Your task to perform on an android device: Go to Android settings Image 0: 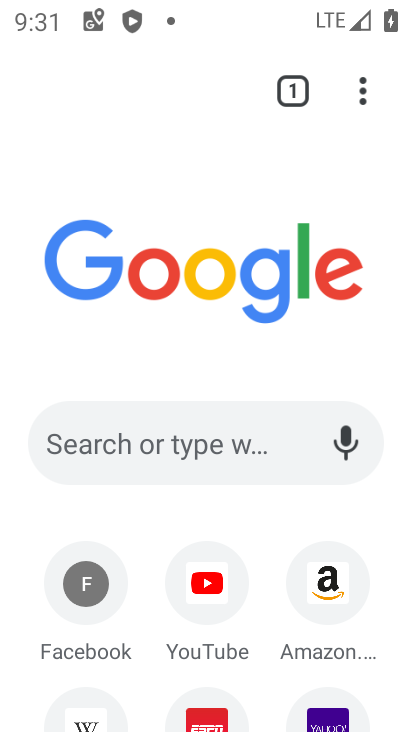
Step 0: press home button
Your task to perform on an android device: Go to Android settings Image 1: 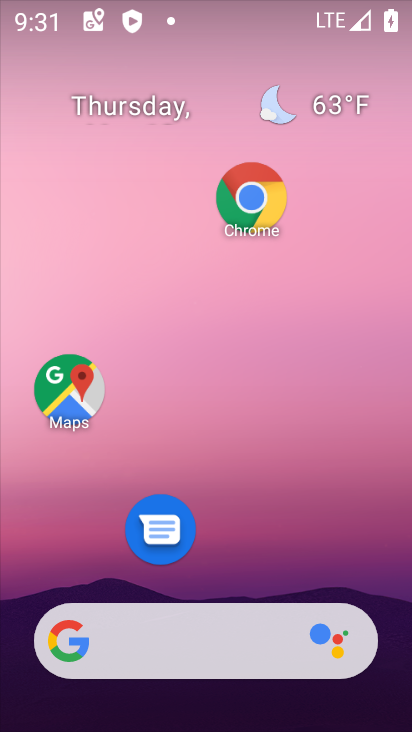
Step 1: drag from (389, 589) to (389, 548)
Your task to perform on an android device: Go to Android settings Image 2: 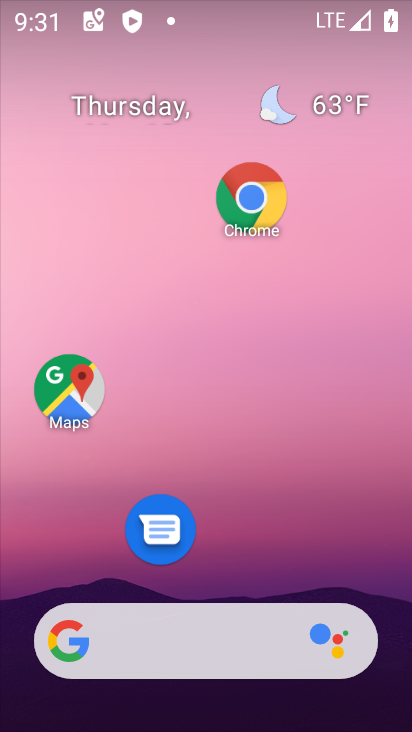
Step 2: drag from (295, 550) to (374, 196)
Your task to perform on an android device: Go to Android settings Image 3: 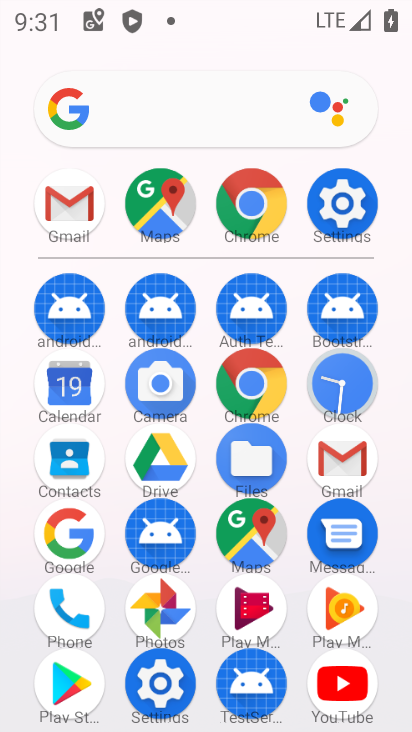
Step 3: click (330, 237)
Your task to perform on an android device: Go to Android settings Image 4: 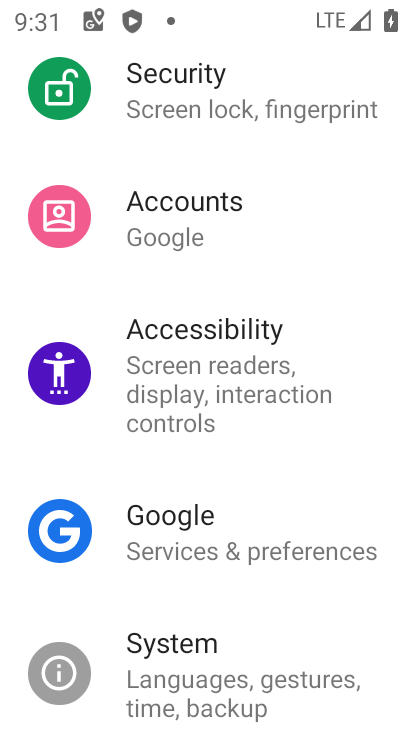
Step 4: drag from (273, 607) to (331, 246)
Your task to perform on an android device: Go to Android settings Image 5: 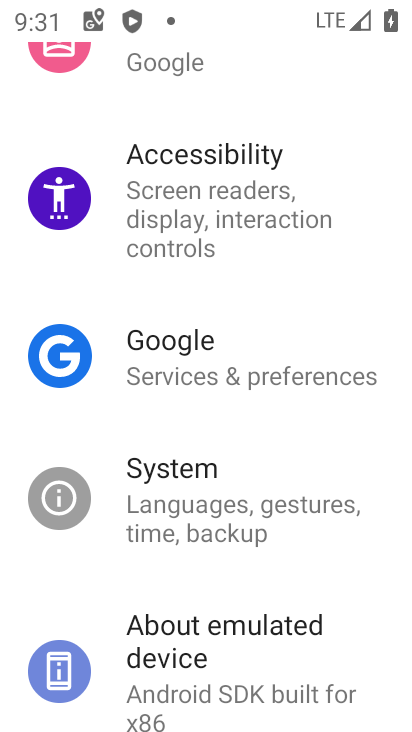
Step 5: drag from (243, 490) to (310, 243)
Your task to perform on an android device: Go to Android settings Image 6: 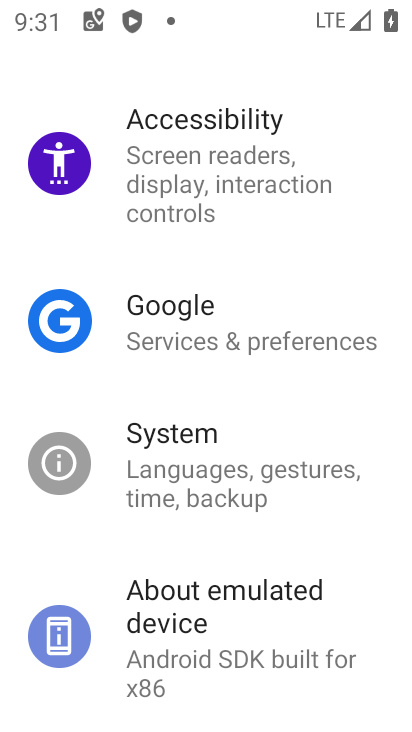
Step 6: click (192, 645)
Your task to perform on an android device: Go to Android settings Image 7: 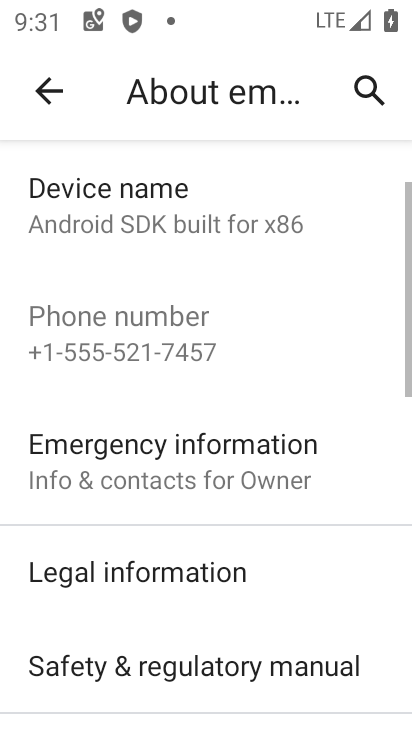
Step 7: drag from (192, 645) to (207, 548)
Your task to perform on an android device: Go to Android settings Image 8: 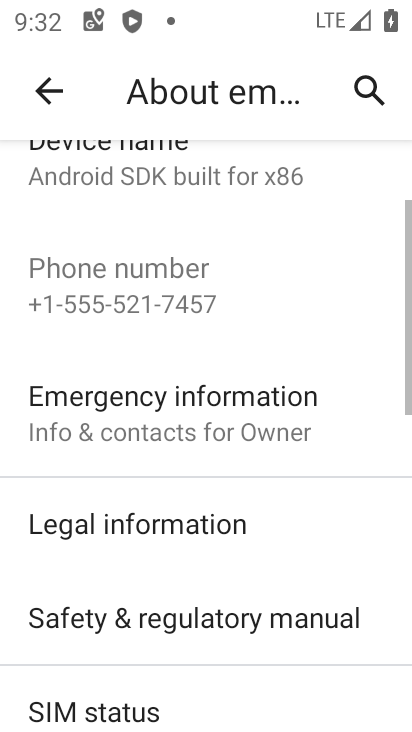
Step 8: drag from (199, 587) to (216, 162)
Your task to perform on an android device: Go to Android settings Image 9: 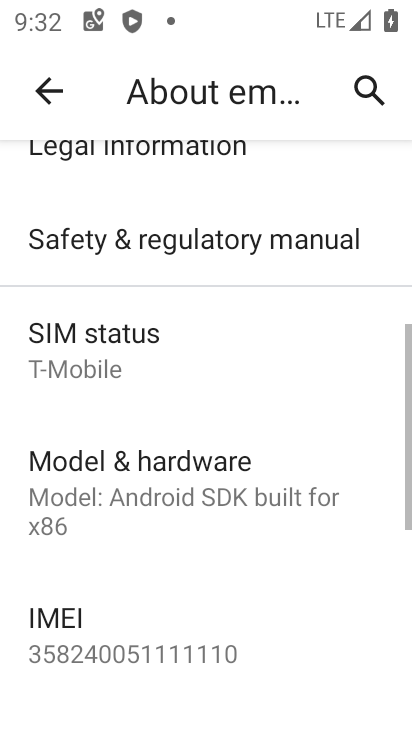
Step 9: drag from (219, 517) to (252, 280)
Your task to perform on an android device: Go to Android settings Image 10: 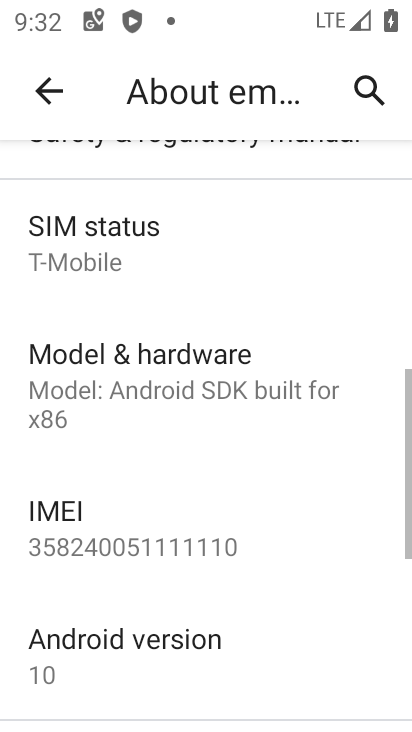
Step 10: click (173, 669)
Your task to perform on an android device: Go to Android settings Image 11: 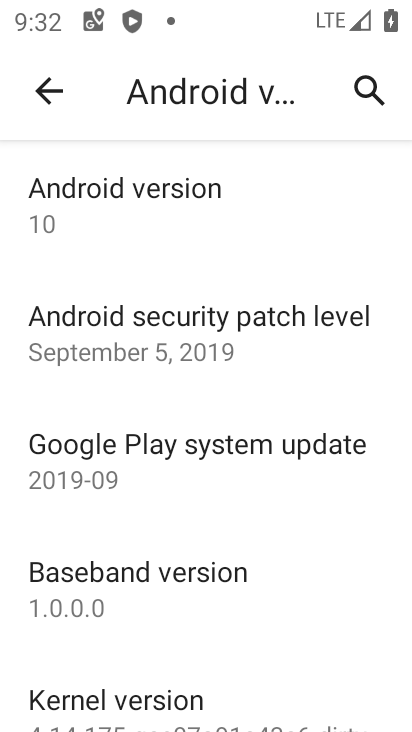
Step 11: click (260, 250)
Your task to perform on an android device: Go to Android settings Image 12: 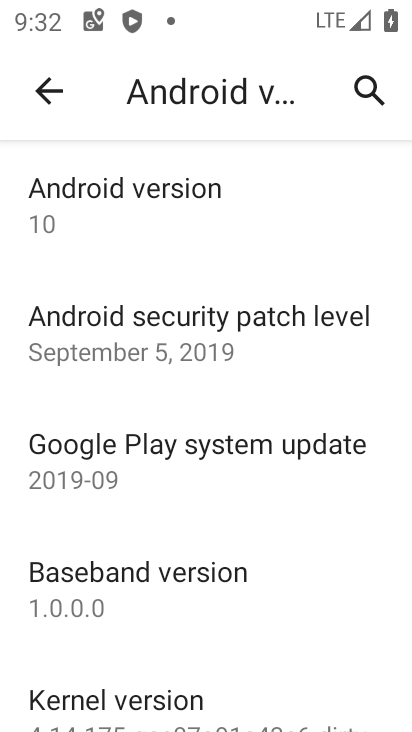
Step 12: task complete